Your task to perform on an android device: find which apps use the phone's location Image 0: 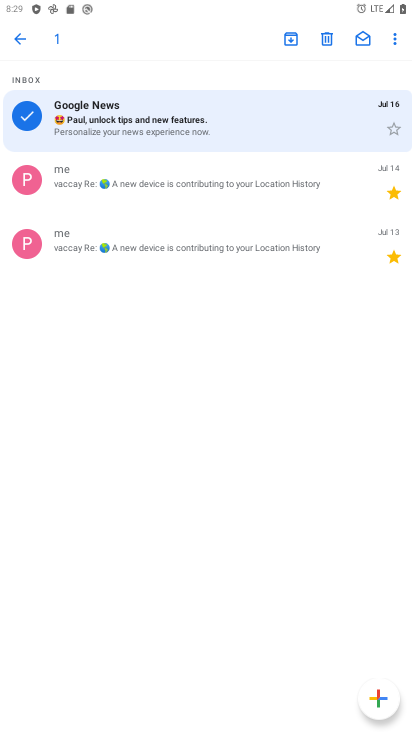
Step 0: click (23, 39)
Your task to perform on an android device: find which apps use the phone's location Image 1: 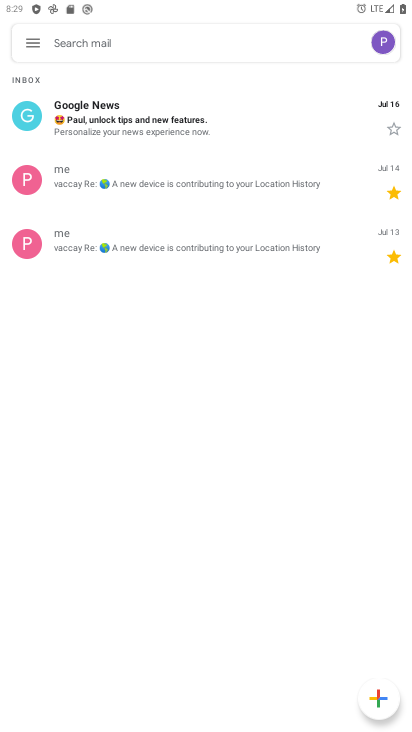
Step 1: click (14, 27)
Your task to perform on an android device: find which apps use the phone's location Image 2: 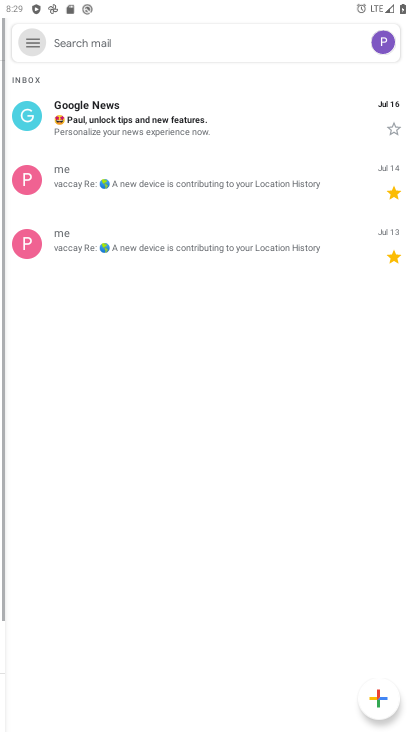
Step 2: click (15, 31)
Your task to perform on an android device: find which apps use the phone's location Image 3: 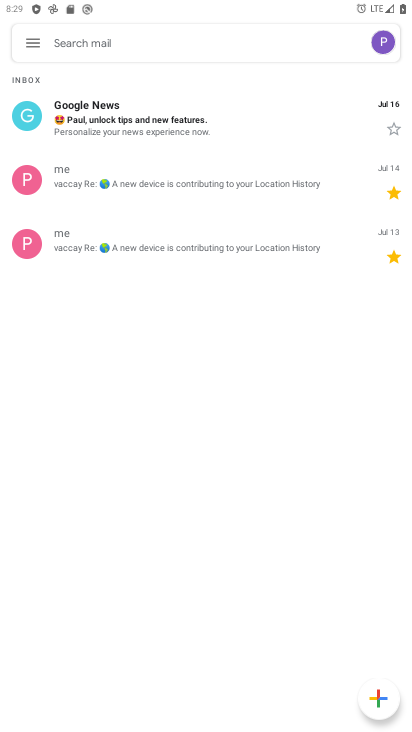
Step 3: press back button
Your task to perform on an android device: find which apps use the phone's location Image 4: 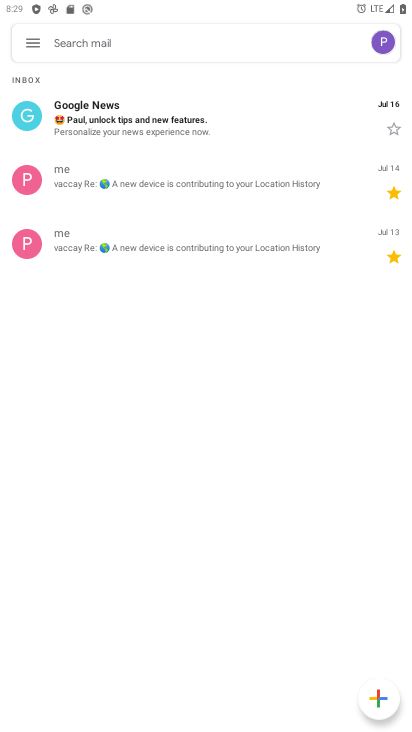
Step 4: press back button
Your task to perform on an android device: find which apps use the phone's location Image 5: 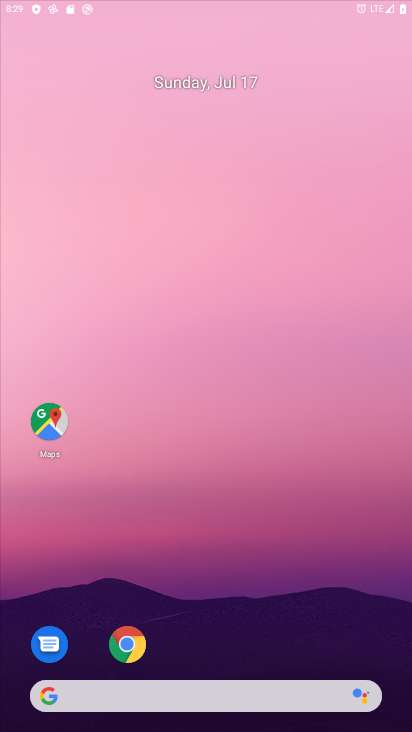
Step 5: press back button
Your task to perform on an android device: find which apps use the phone's location Image 6: 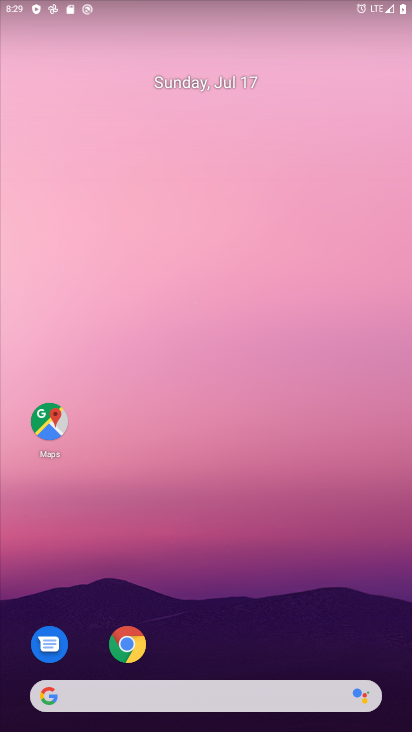
Step 6: press back button
Your task to perform on an android device: find which apps use the phone's location Image 7: 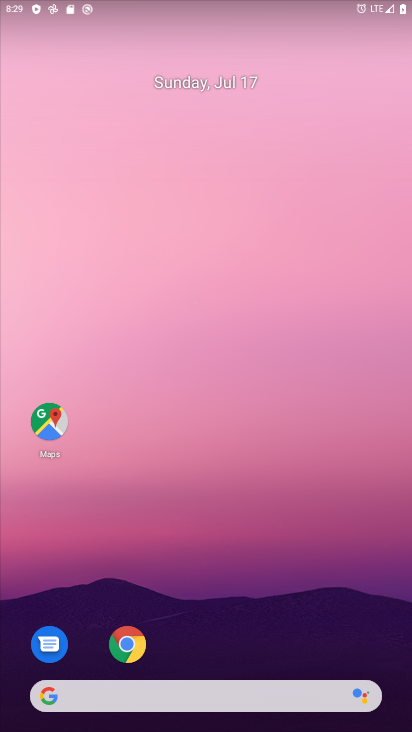
Step 7: drag from (239, 679) to (222, 63)
Your task to perform on an android device: find which apps use the phone's location Image 8: 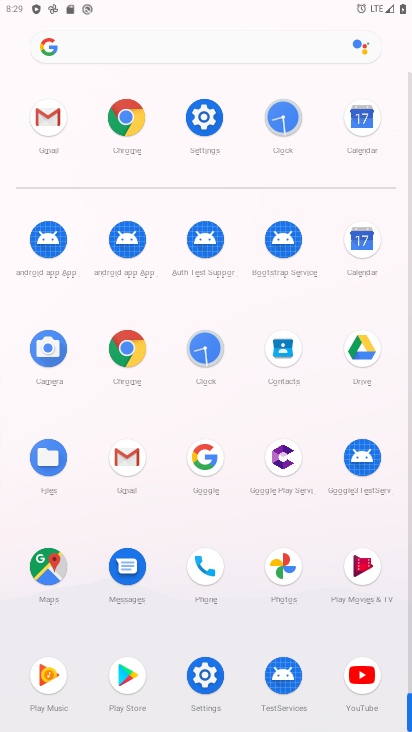
Step 8: click (210, 681)
Your task to perform on an android device: find which apps use the phone's location Image 9: 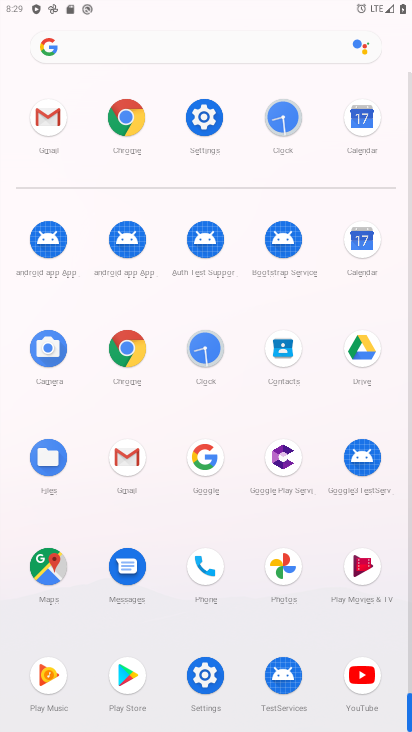
Step 9: click (212, 680)
Your task to perform on an android device: find which apps use the phone's location Image 10: 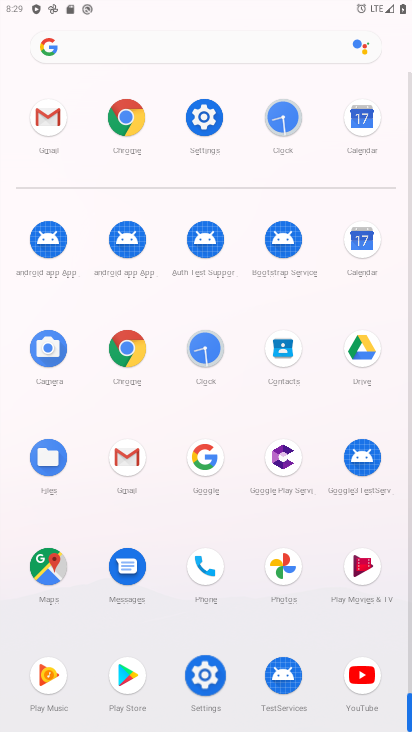
Step 10: click (212, 664)
Your task to perform on an android device: find which apps use the phone's location Image 11: 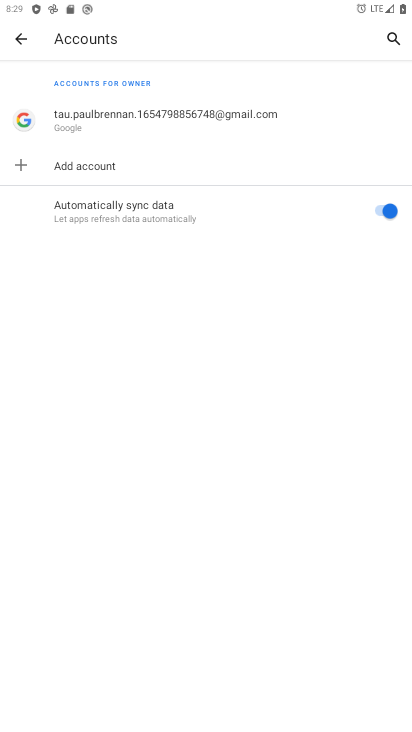
Step 11: click (19, 36)
Your task to perform on an android device: find which apps use the phone's location Image 12: 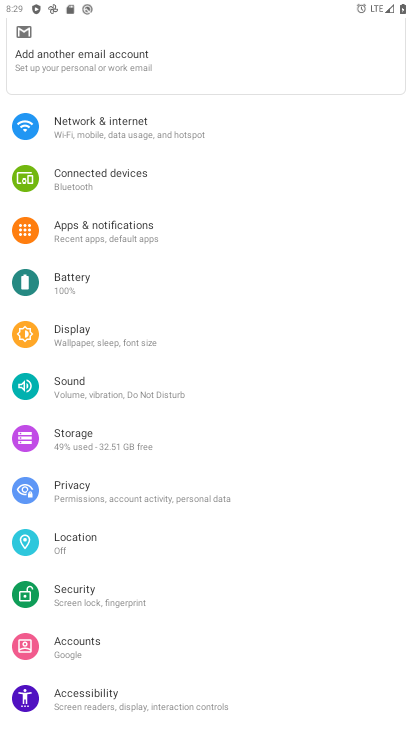
Step 12: drag from (131, 606) to (211, 245)
Your task to perform on an android device: find which apps use the phone's location Image 13: 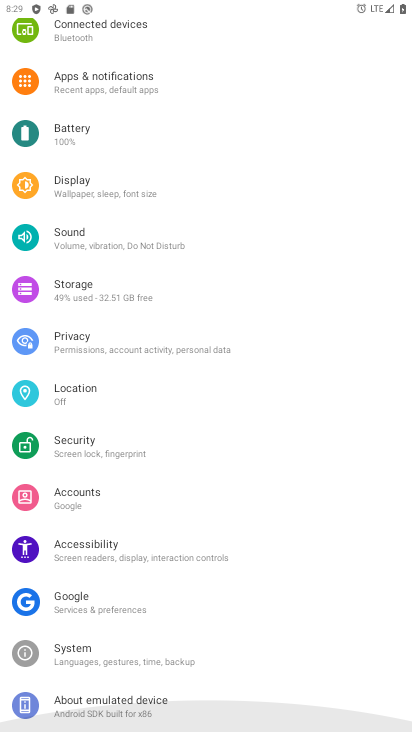
Step 13: drag from (147, 355) to (124, 255)
Your task to perform on an android device: find which apps use the phone's location Image 14: 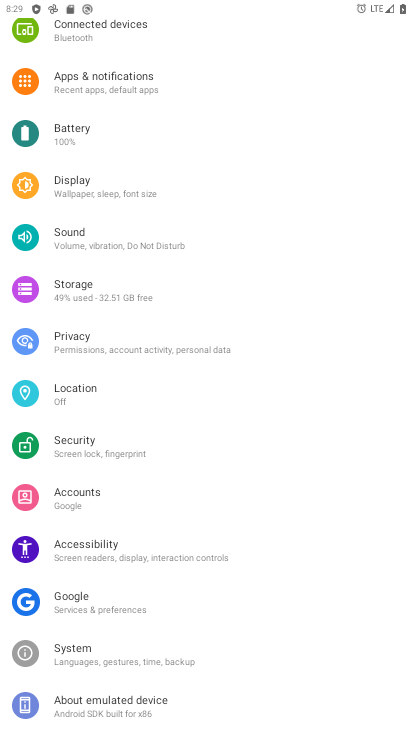
Step 14: drag from (122, 589) to (134, 33)
Your task to perform on an android device: find which apps use the phone's location Image 15: 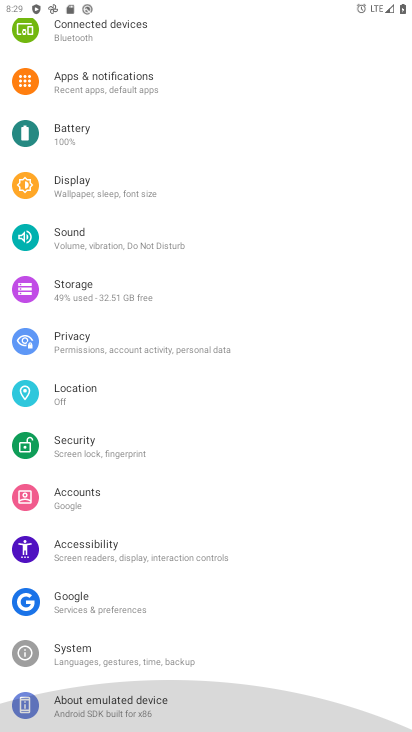
Step 15: drag from (126, 615) to (122, 138)
Your task to perform on an android device: find which apps use the phone's location Image 16: 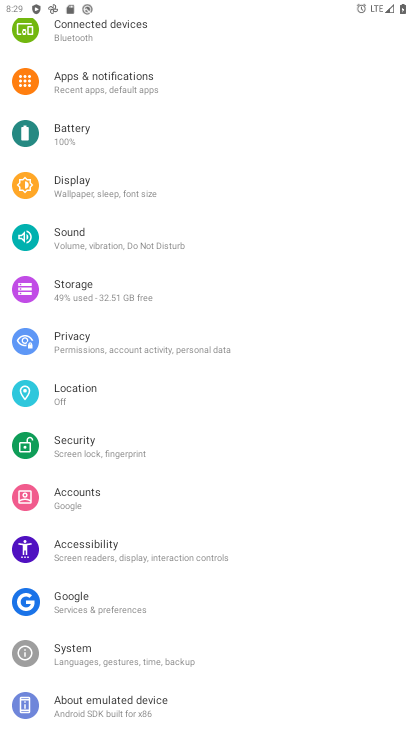
Step 16: click (66, 383)
Your task to perform on an android device: find which apps use the phone's location Image 17: 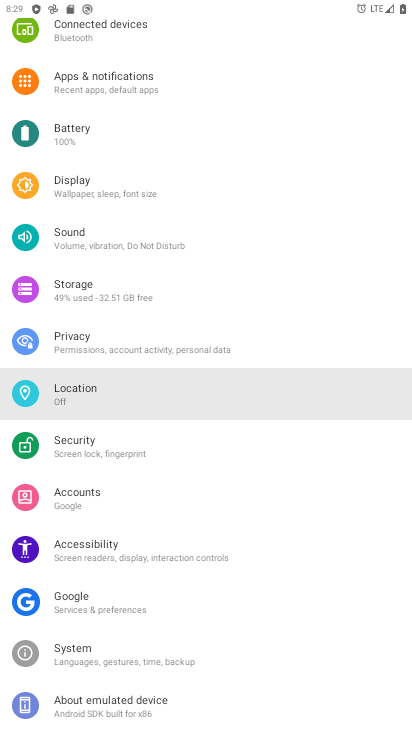
Step 17: click (66, 384)
Your task to perform on an android device: find which apps use the phone's location Image 18: 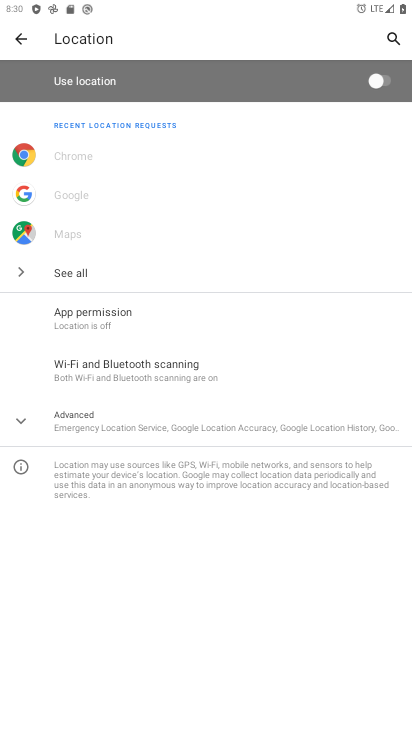
Step 18: click (89, 323)
Your task to perform on an android device: find which apps use the phone's location Image 19: 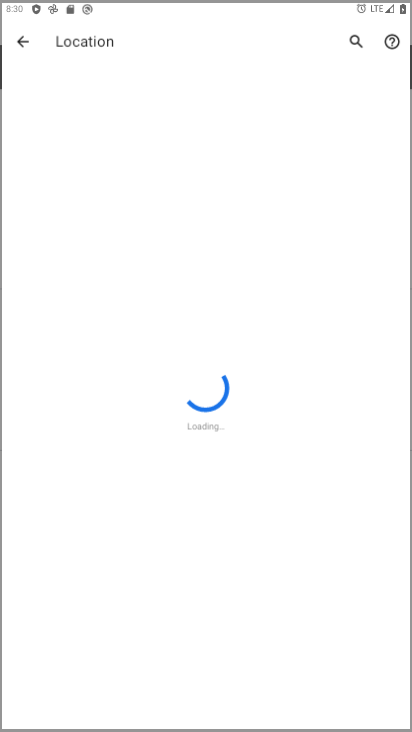
Step 19: click (89, 323)
Your task to perform on an android device: find which apps use the phone's location Image 20: 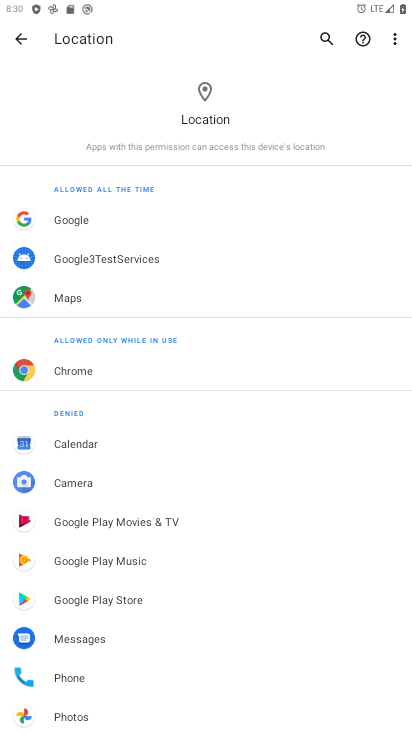
Step 20: task complete